Your task to perform on an android device: Open the stopwatch Image 0: 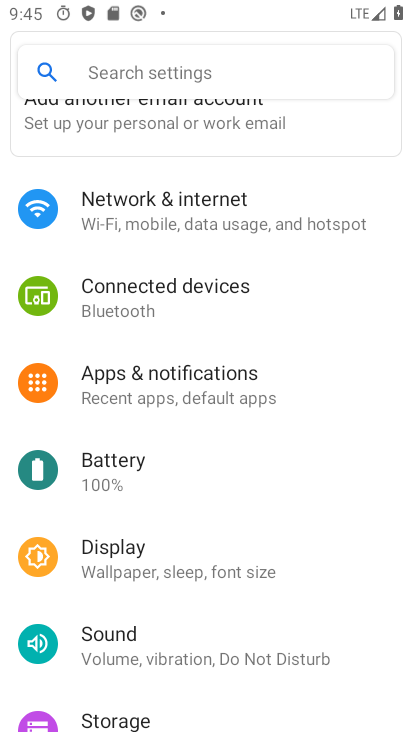
Step 0: press home button
Your task to perform on an android device: Open the stopwatch Image 1: 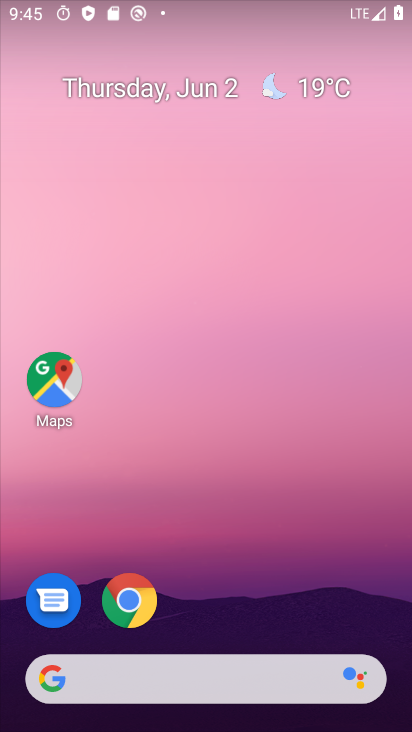
Step 1: drag from (189, 608) to (191, 278)
Your task to perform on an android device: Open the stopwatch Image 2: 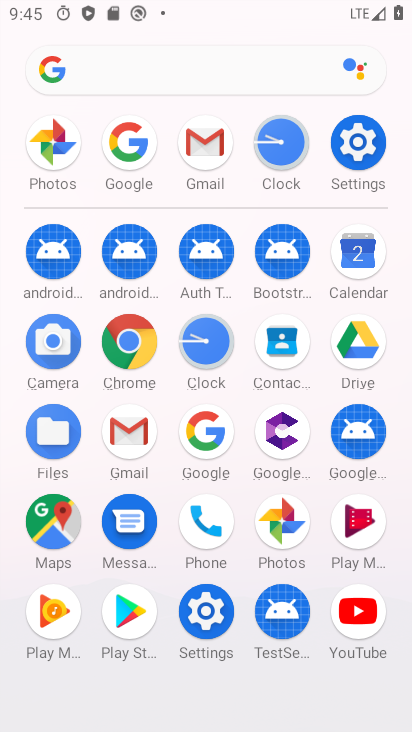
Step 2: click (263, 148)
Your task to perform on an android device: Open the stopwatch Image 3: 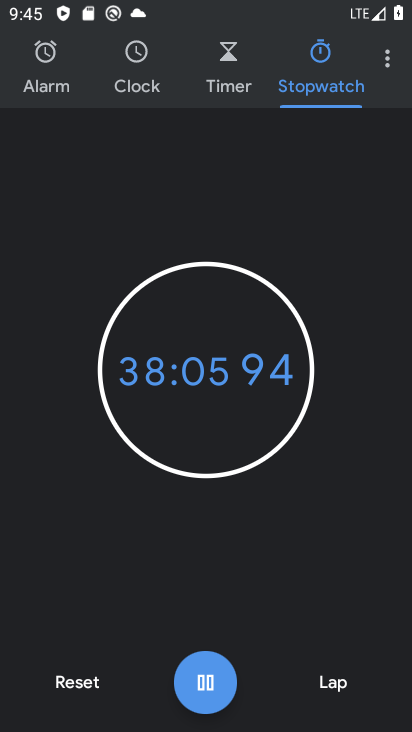
Step 3: task complete